Your task to perform on an android device: Open eBay Image 0: 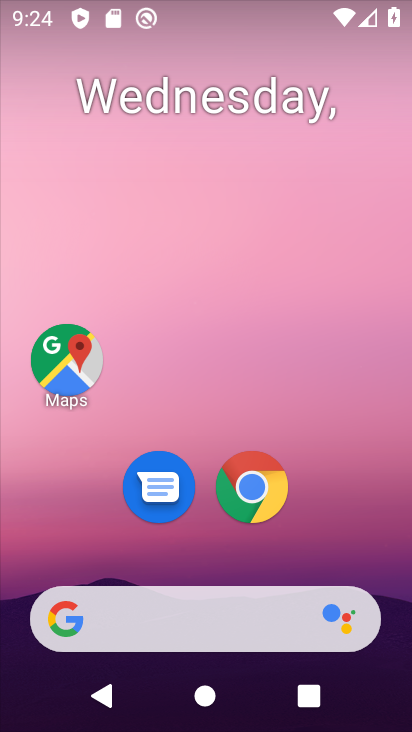
Step 0: click (257, 480)
Your task to perform on an android device: Open eBay Image 1: 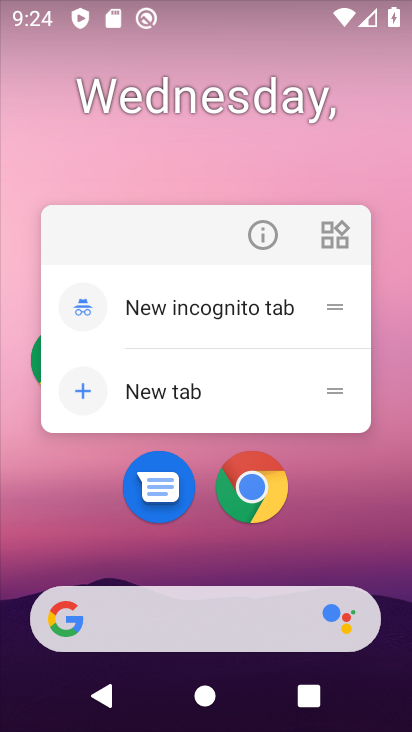
Step 1: click (271, 240)
Your task to perform on an android device: Open eBay Image 2: 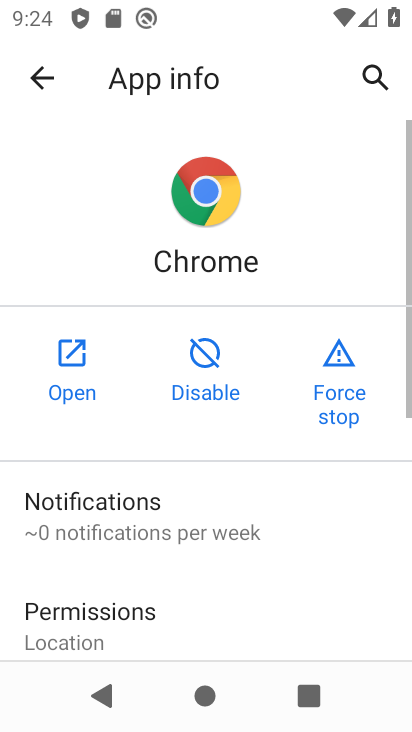
Step 2: click (68, 367)
Your task to perform on an android device: Open eBay Image 3: 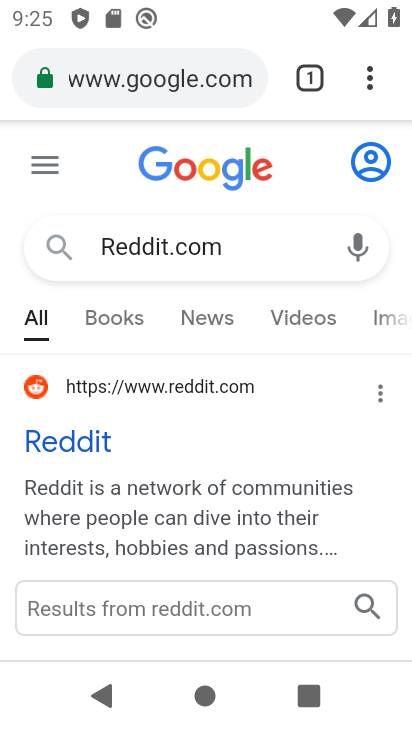
Step 3: click (321, 82)
Your task to perform on an android device: Open eBay Image 4: 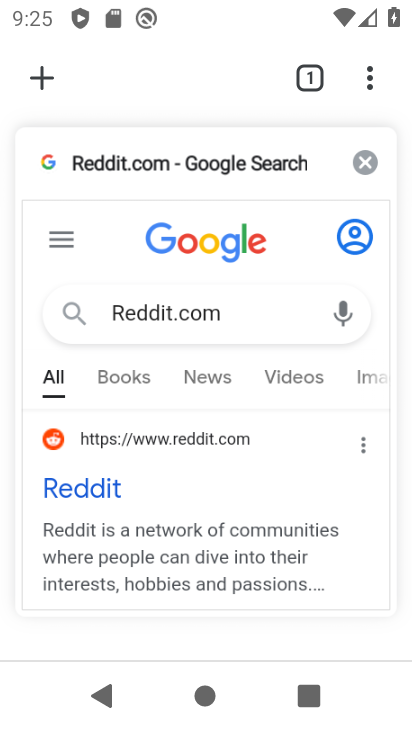
Step 4: click (36, 75)
Your task to perform on an android device: Open eBay Image 5: 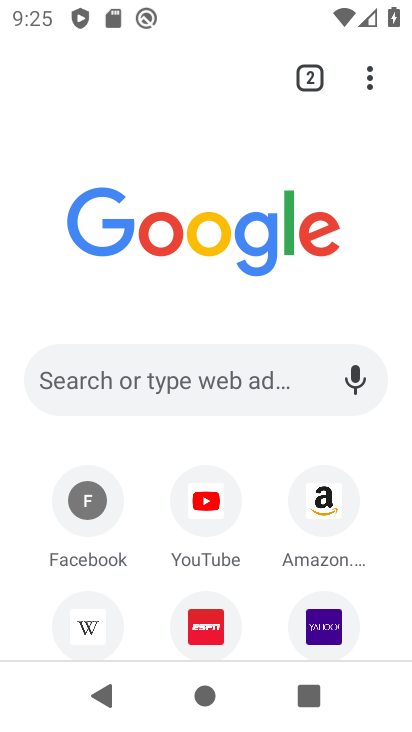
Step 5: drag from (226, 631) to (226, 434)
Your task to perform on an android device: Open eBay Image 6: 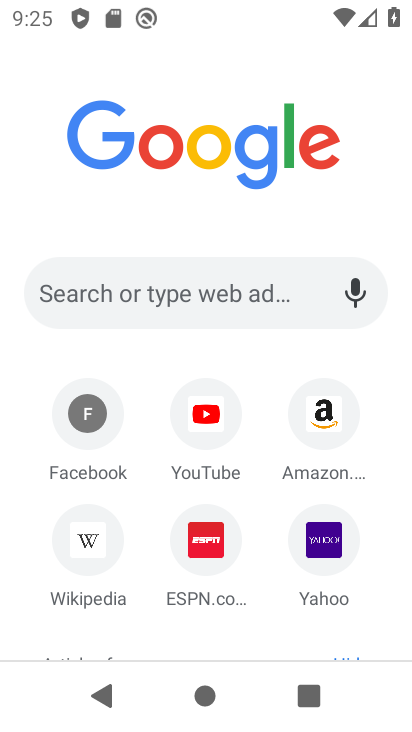
Step 6: drag from (249, 614) to (280, 264)
Your task to perform on an android device: Open eBay Image 7: 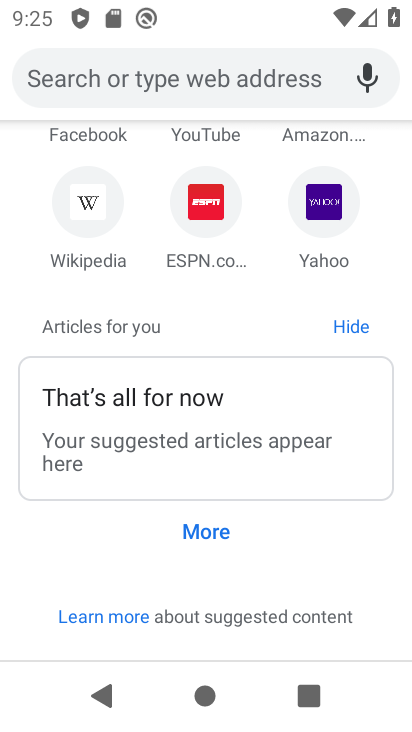
Step 7: click (167, 92)
Your task to perform on an android device: Open eBay Image 8: 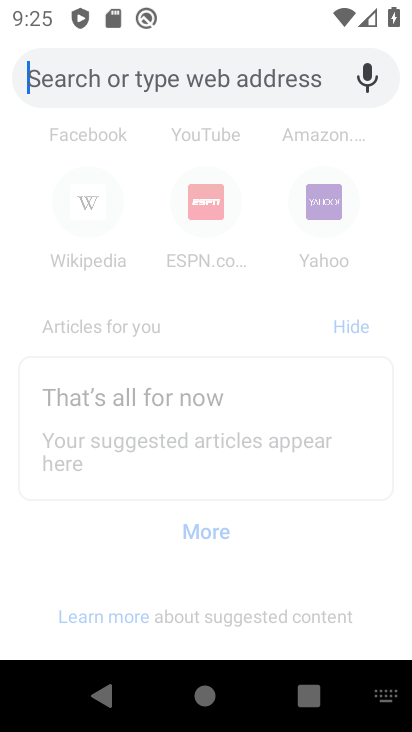
Step 8: type "eBay"
Your task to perform on an android device: Open eBay Image 9: 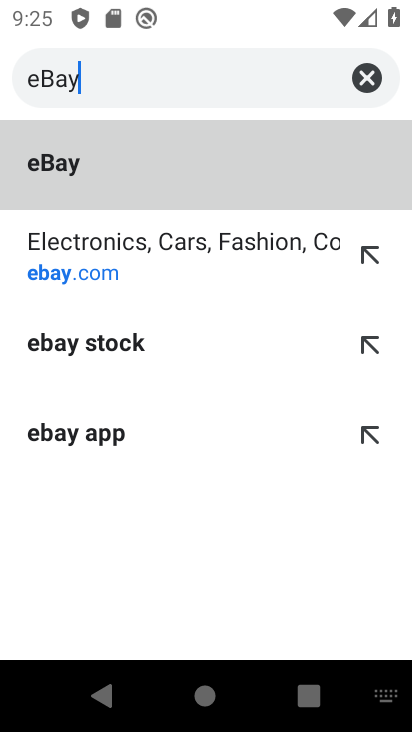
Step 9: click (185, 153)
Your task to perform on an android device: Open eBay Image 10: 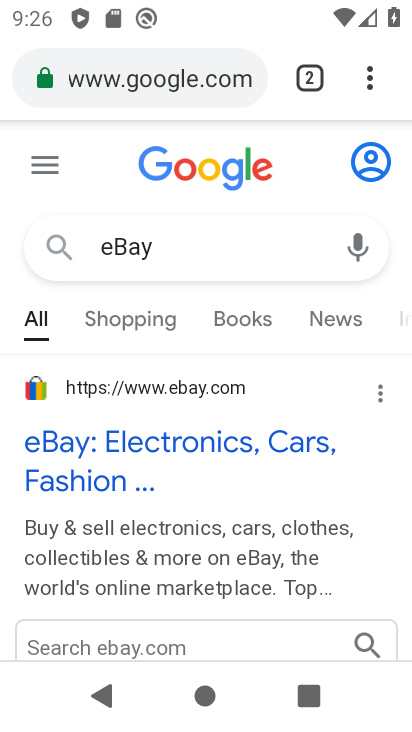
Step 10: task complete